Your task to perform on an android device: Go to wifi settings Image 0: 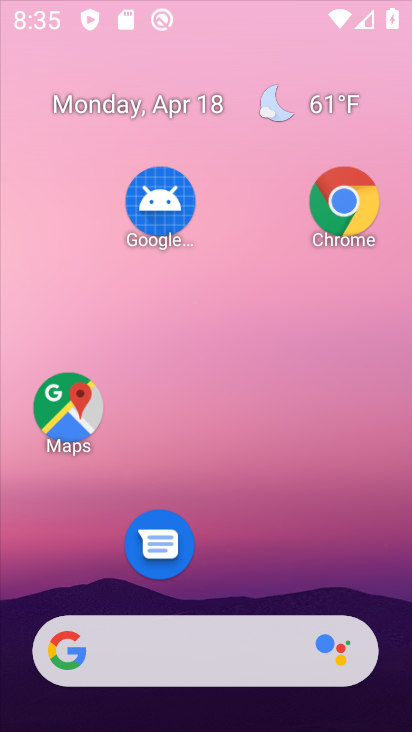
Step 0: click (398, 29)
Your task to perform on an android device: Go to wifi settings Image 1: 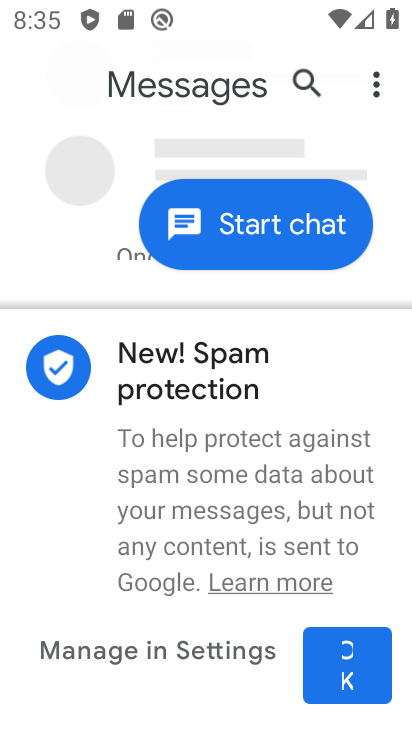
Step 1: press home button
Your task to perform on an android device: Go to wifi settings Image 2: 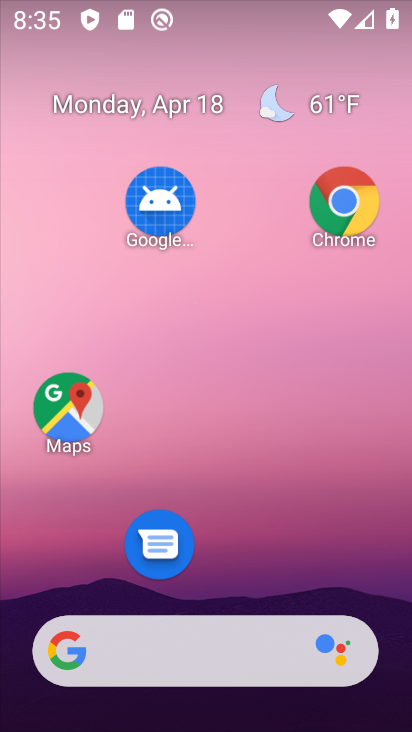
Step 2: drag from (216, 601) to (356, 11)
Your task to perform on an android device: Go to wifi settings Image 3: 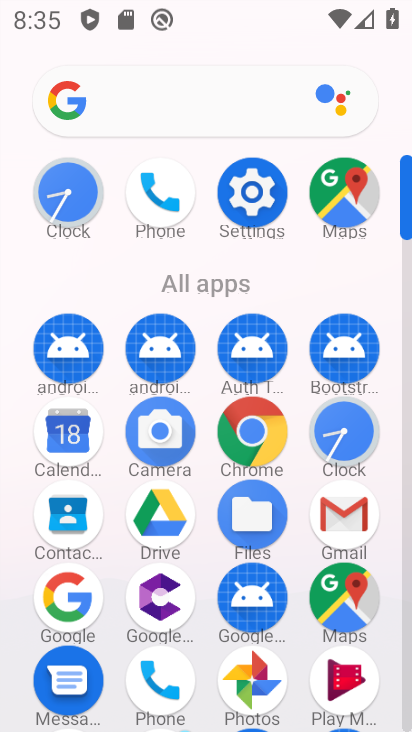
Step 3: click (250, 184)
Your task to perform on an android device: Go to wifi settings Image 4: 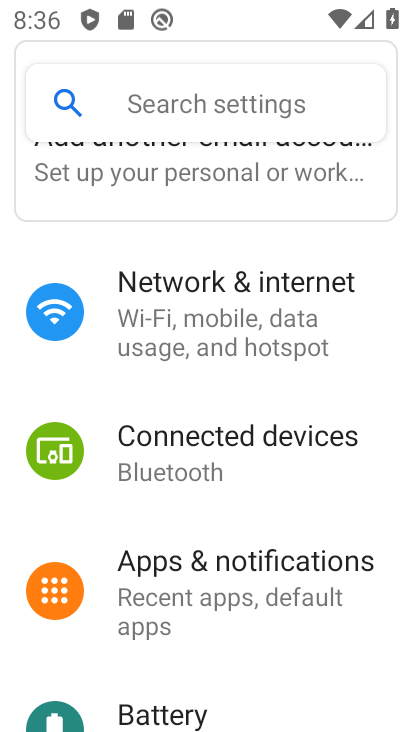
Step 4: click (238, 280)
Your task to perform on an android device: Go to wifi settings Image 5: 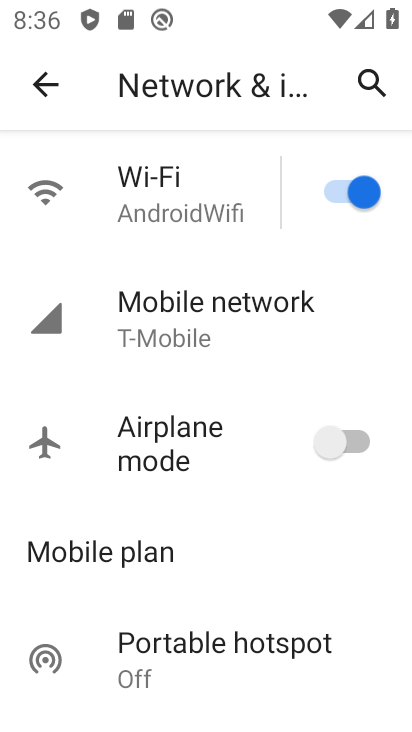
Step 5: click (200, 220)
Your task to perform on an android device: Go to wifi settings Image 6: 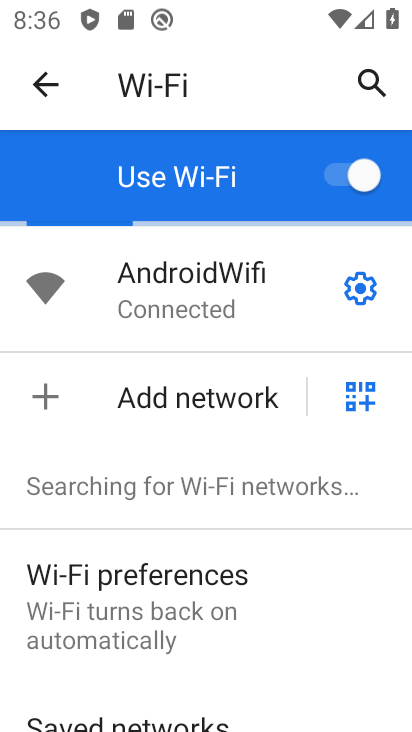
Step 6: task complete